Your task to perform on an android device: Go to eBay Image 0: 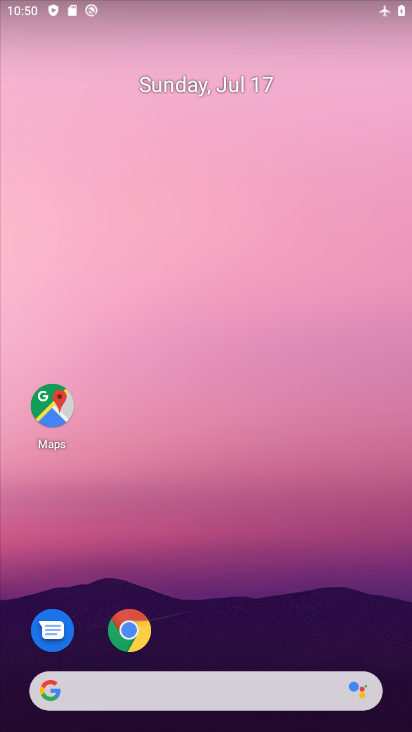
Step 0: drag from (195, 652) to (213, 21)
Your task to perform on an android device: Go to eBay Image 1: 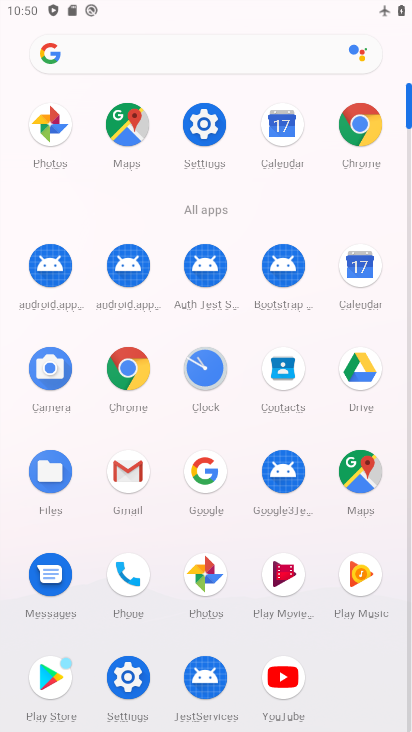
Step 1: click (137, 367)
Your task to perform on an android device: Go to eBay Image 2: 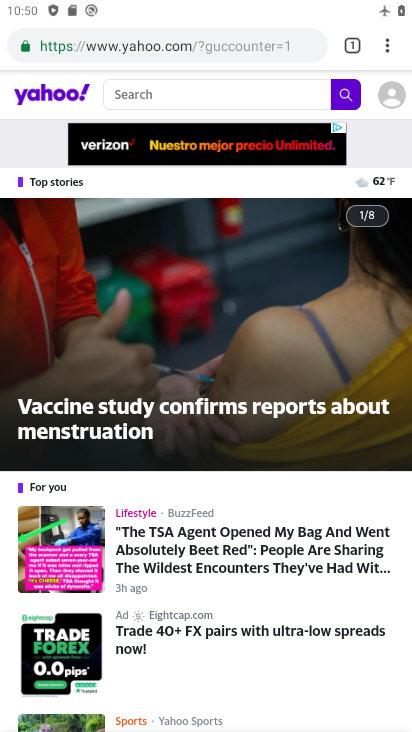
Step 2: click (349, 45)
Your task to perform on an android device: Go to eBay Image 3: 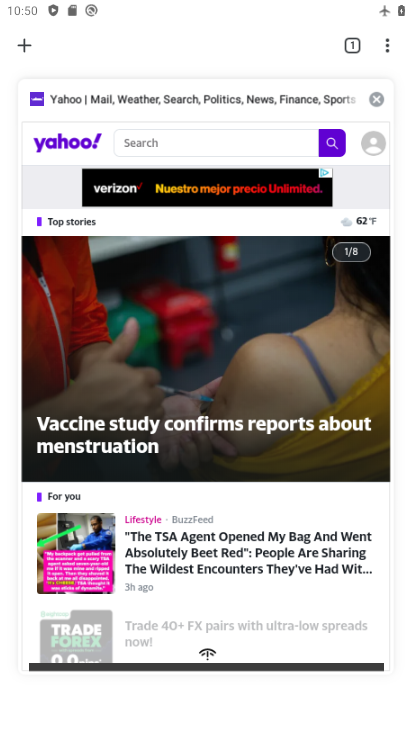
Step 3: click (20, 40)
Your task to perform on an android device: Go to eBay Image 4: 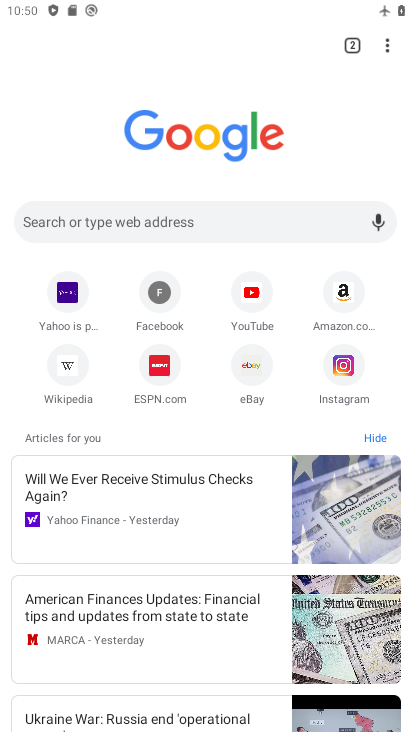
Step 4: click (241, 373)
Your task to perform on an android device: Go to eBay Image 5: 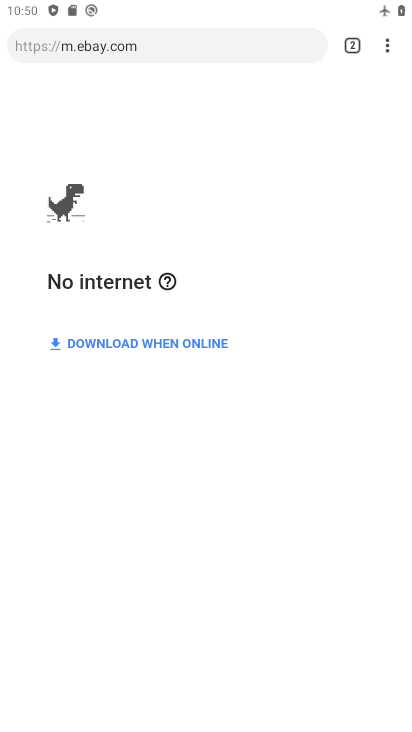
Step 5: task complete